Your task to perform on an android device: Add "amazon basics triple a" to the cart on walmart.com Image 0: 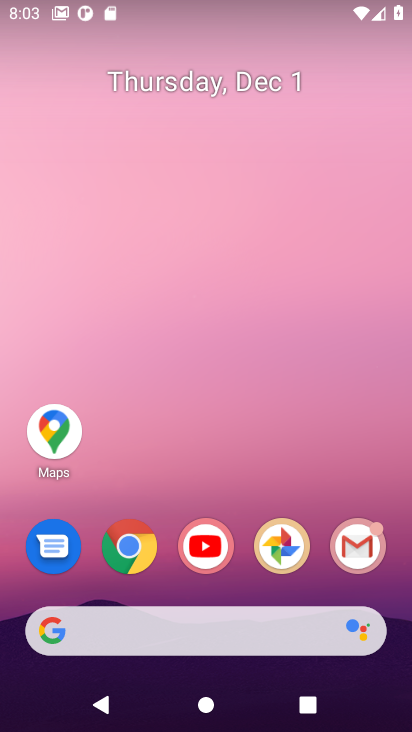
Step 0: click (140, 547)
Your task to perform on an android device: Add "amazon basics triple a" to the cart on walmart.com Image 1: 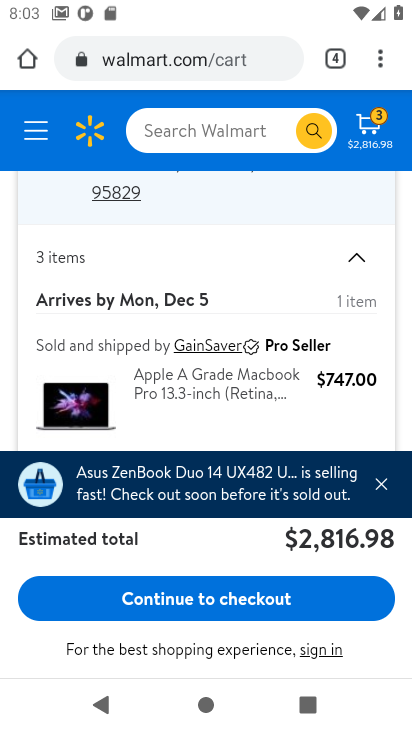
Step 1: click (170, 135)
Your task to perform on an android device: Add "amazon basics triple a" to the cart on walmart.com Image 2: 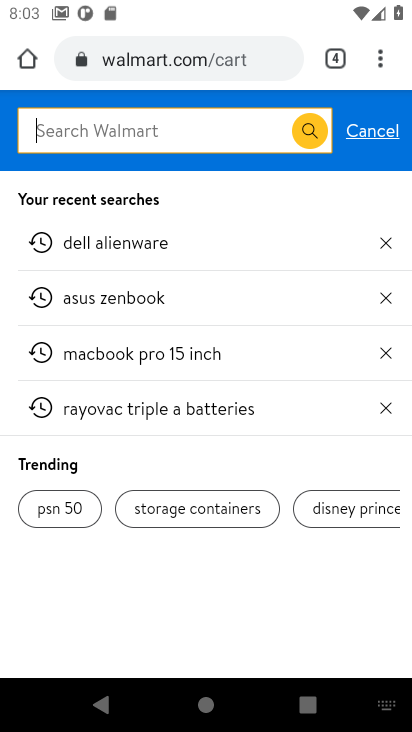
Step 2: click (129, 138)
Your task to perform on an android device: Add "amazon basics triple a" to the cart on walmart.com Image 3: 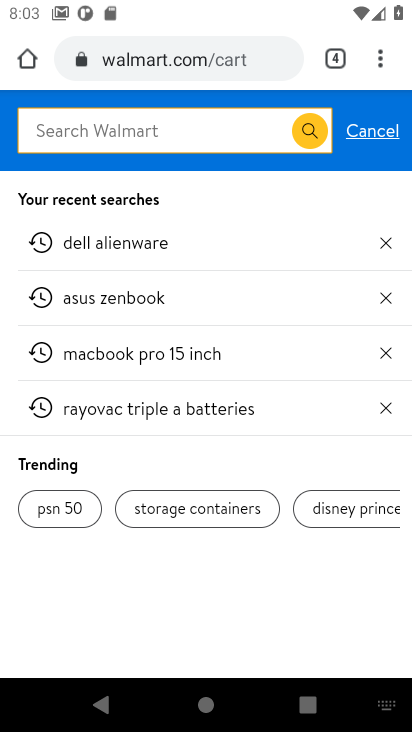
Step 3: type "amazon basics triple a"
Your task to perform on an android device: Add "amazon basics triple a" to the cart on walmart.com Image 4: 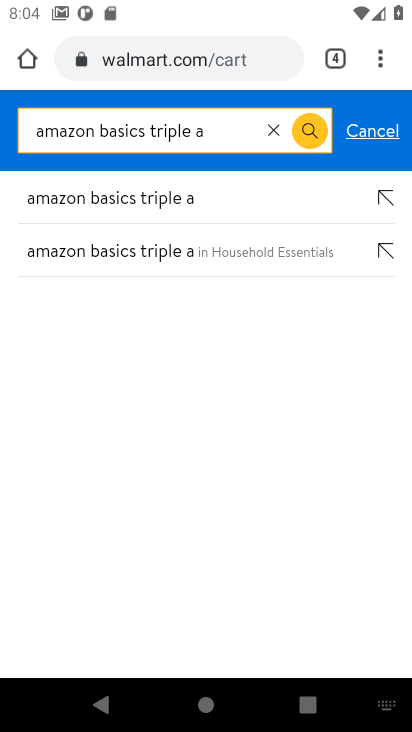
Step 4: click (98, 204)
Your task to perform on an android device: Add "amazon basics triple a" to the cart on walmart.com Image 5: 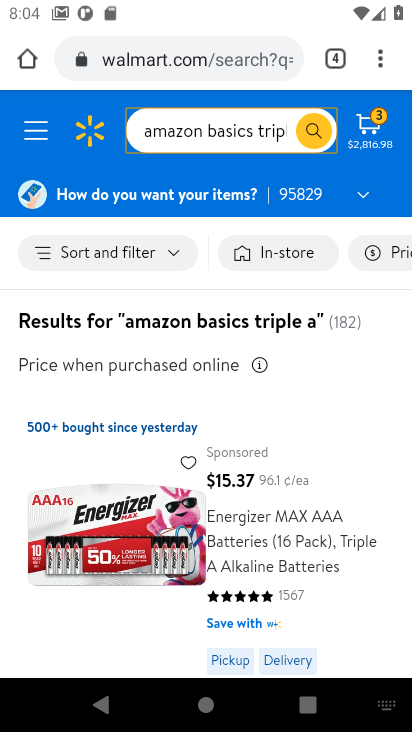
Step 5: task complete